Your task to perform on an android device: refresh tabs in the chrome app Image 0: 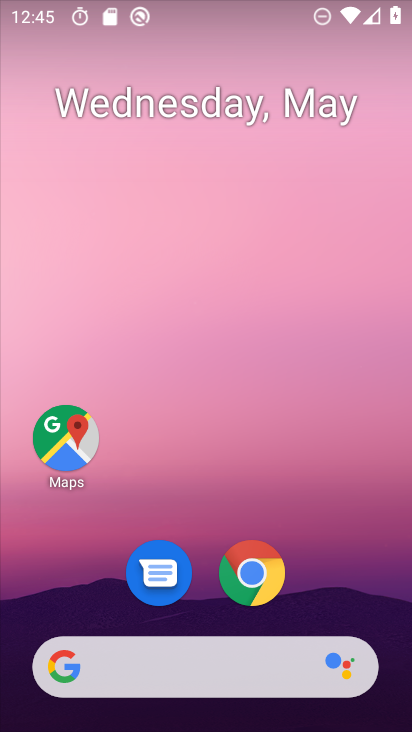
Step 0: drag from (341, 549) to (279, 10)
Your task to perform on an android device: refresh tabs in the chrome app Image 1: 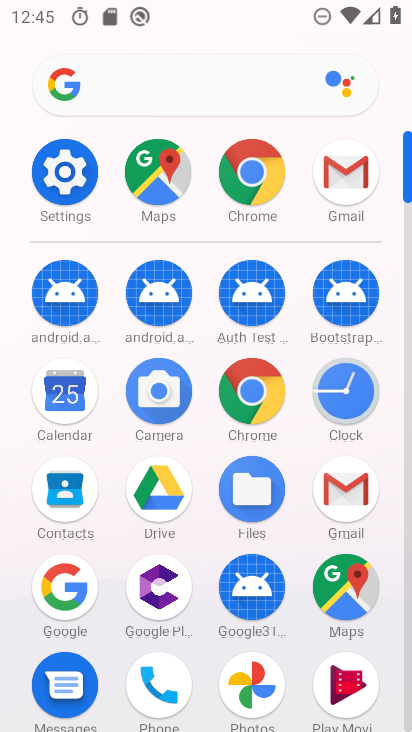
Step 1: click (256, 168)
Your task to perform on an android device: refresh tabs in the chrome app Image 2: 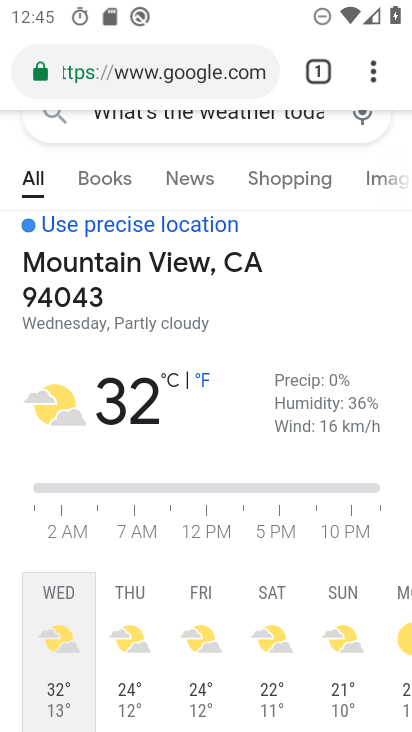
Step 2: click (370, 70)
Your task to perform on an android device: refresh tabs in the chrome app Image 3: 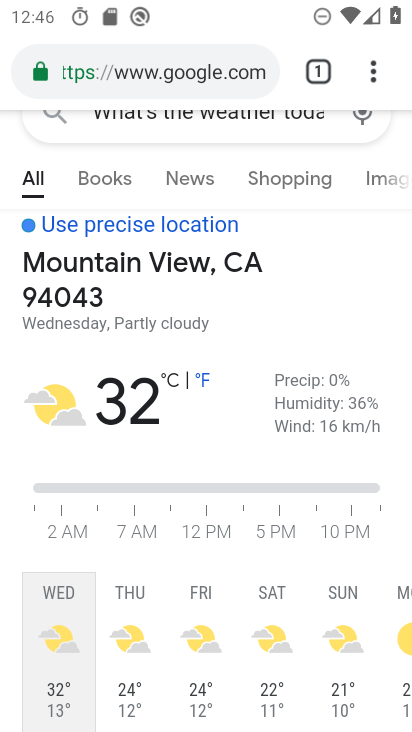
Step 3: task complete